Your task to perform on an android device: clear history in the chrome app Image 0: 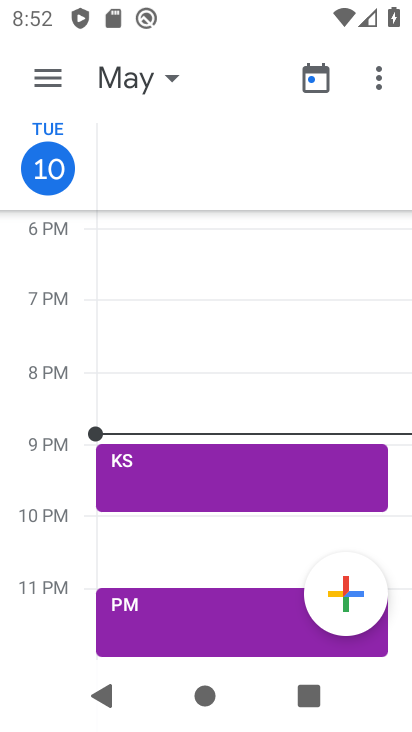
Step 0: press home button
Your task to perform on an android device: clear history in the chrome app Image 1: 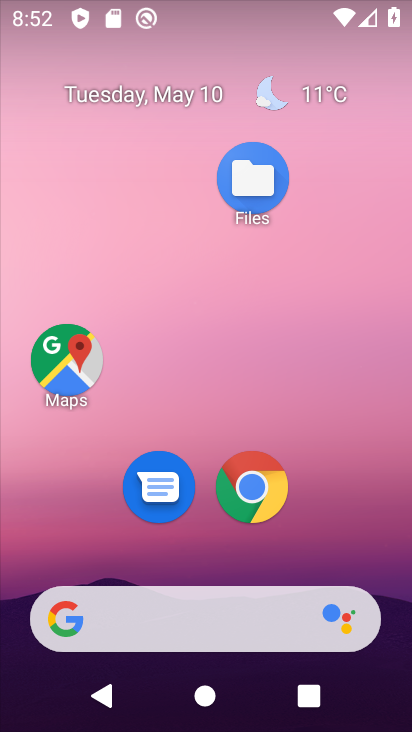
Step 1: click (250, 488)
Your task to perform on an android device: clear history in the chrome app Image 2: 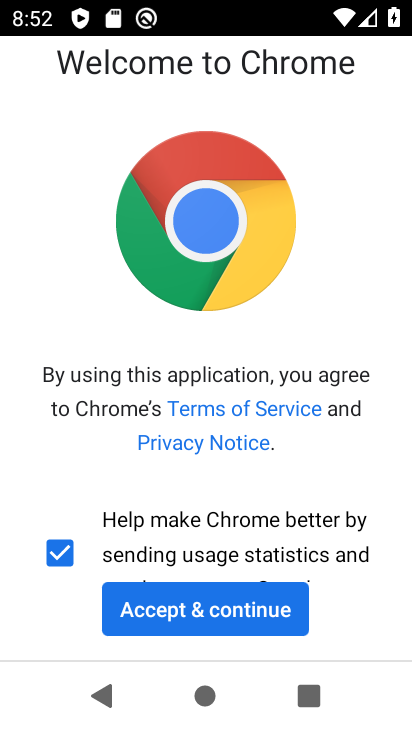
Step 2: click (160, 609)
Your task to perform on an android device: clear history in the chrome app Image 3: 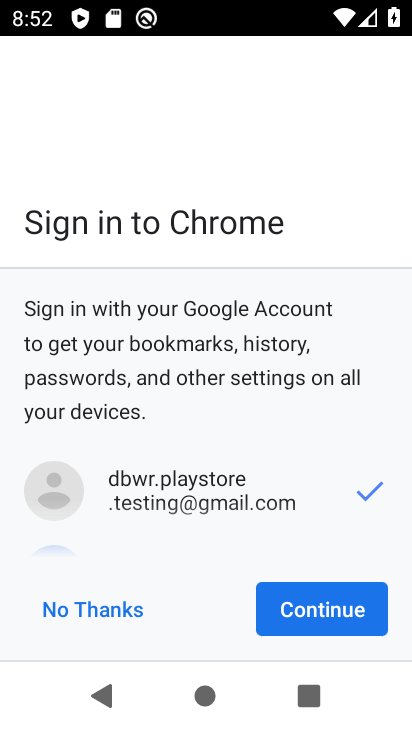
Step 3: click (316, 599)
Your task to perform on an android device: clear history in the chrome app Image 4: 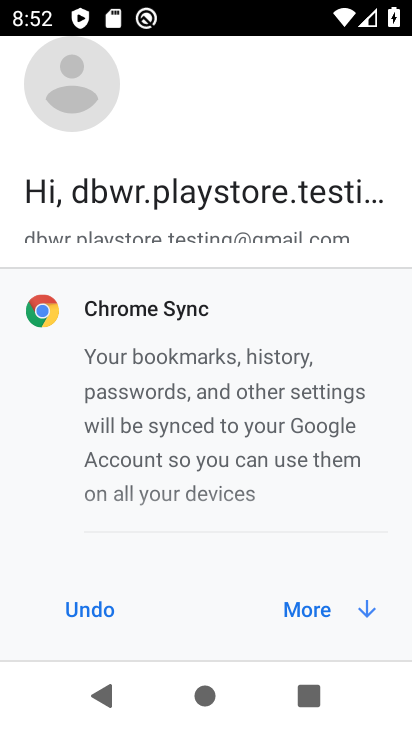
Step 4: click (313, 604)
Your task to perform on an android device: clear history in the chrome app Image 5: 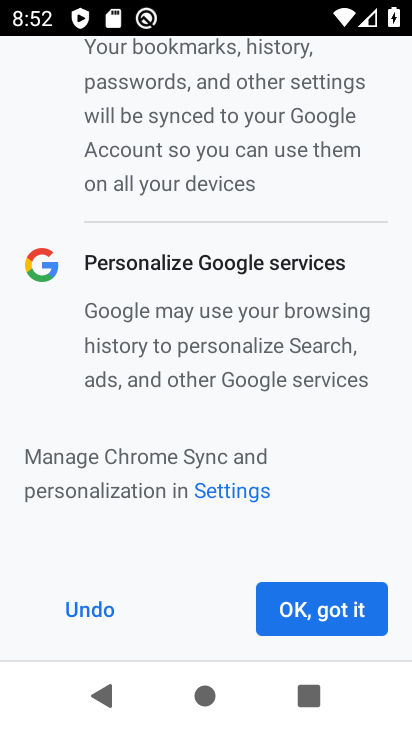
Step 5: click (313, 604)
Your task to perform on an android device: clear history in the chrome app Image 6: 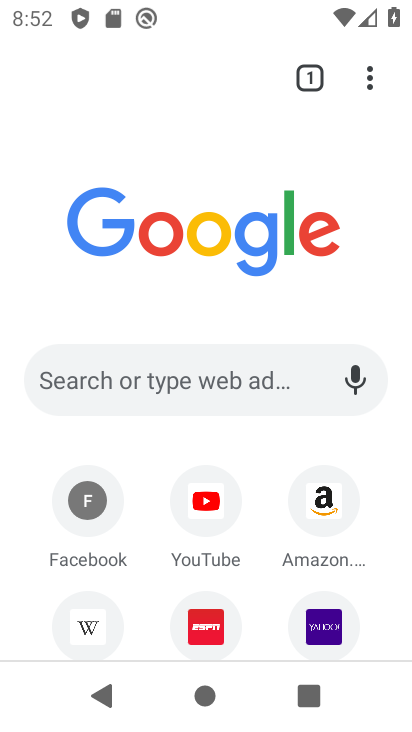
Step 6: click (365, 79)
Your task to perform on an android device: clear history in the chrome app Image 7: 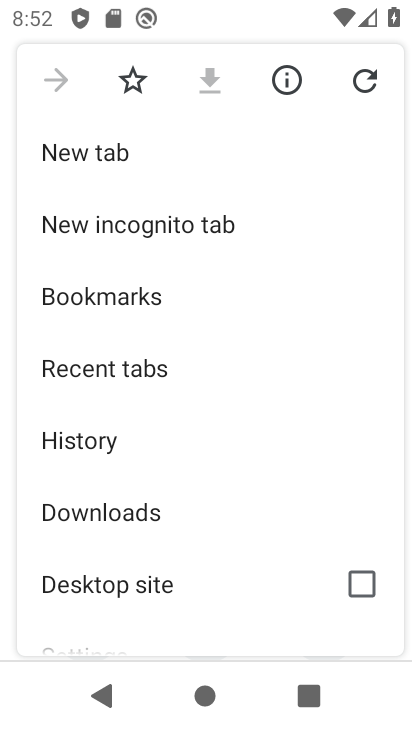
Step 7: drag from (192, 587) to (157, 180)
Your task to perform on an android device: clear history in the chrome app Image 8: 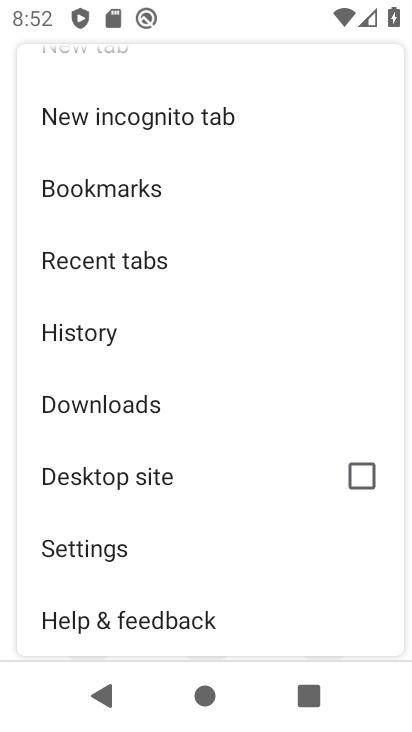
Step 8: click (106, 562)
Your task to perform on an android device: clear history in the chrome app Image 9: 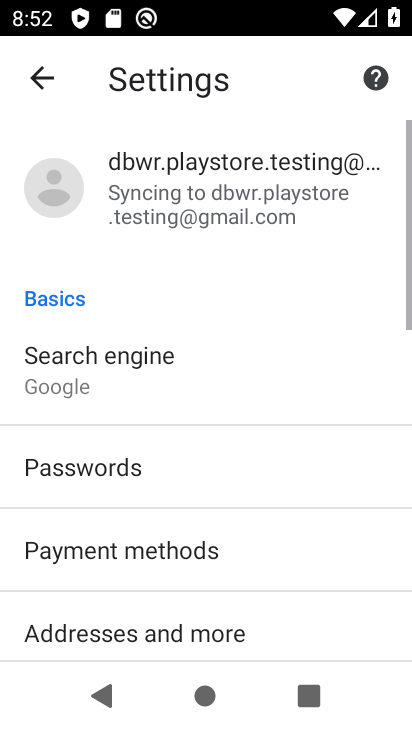
Step 9: drag from (201, 533) to (227, 49)
Your task to perform on an android device: clear history in the chrome app Image 10: 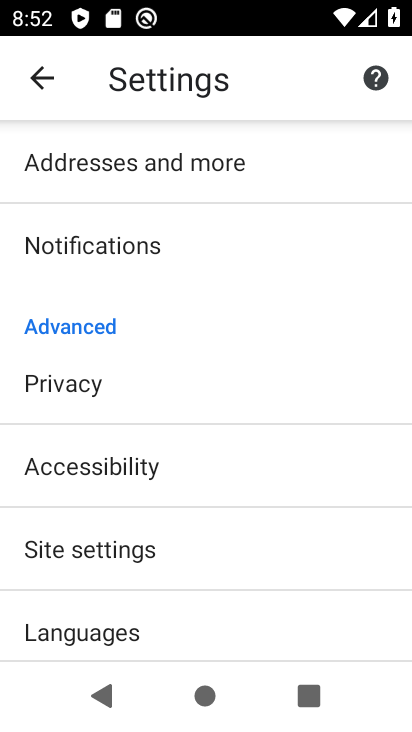
Step 10: click (52, 392)
Your task to perform on an android device: clear history in the chrome app Image 11: 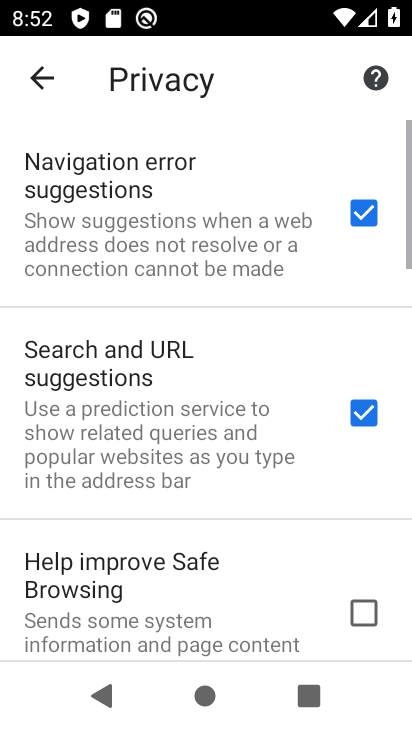
Step 11: drag from (233, 522) to (230, 78)
Your task to perform on an android device: clear history in the chrome app Image 12: 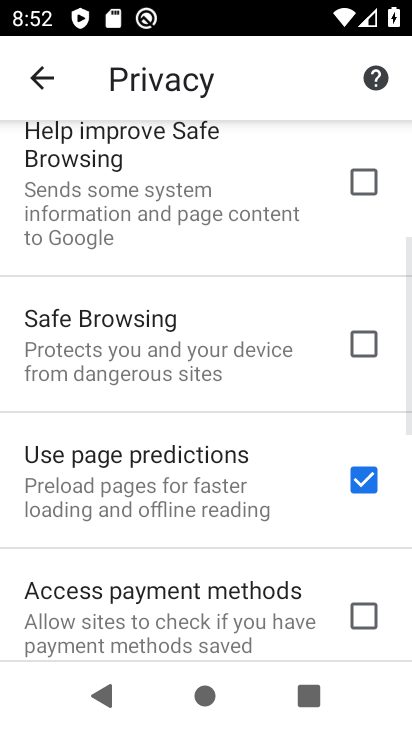
Step 12: drag from (249, 529) to (295, 16)
Your task to perform on an android device: clear history in the chrome app Image 13: 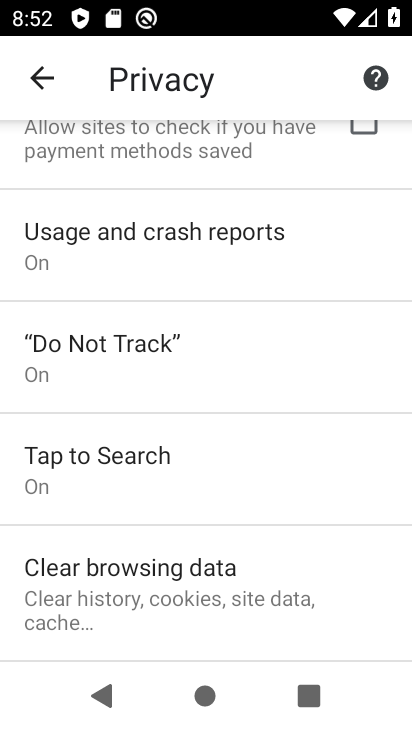
Step 13: click (175, 587)
Your task to perform on an android device: clear history in the chrome app Image 14: 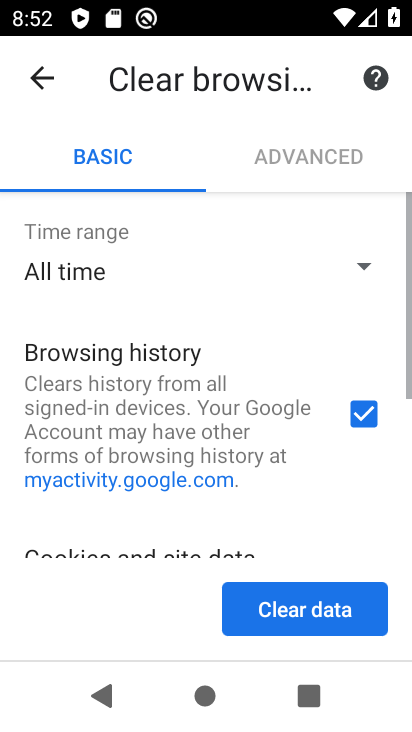
Step 14: drag from (264, 462) to (259, 181)
Your task to perform on an android device: clear history in the chrome app Image 15: 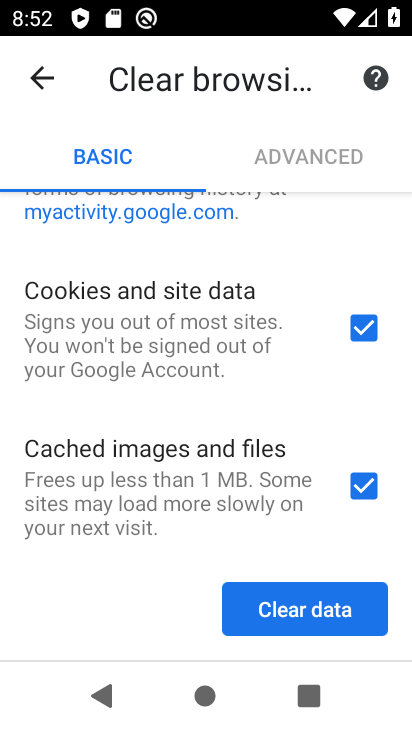
Step 15: click (370, 327)
Your task to perform on an android device: clear history in the chrome app Image 16: 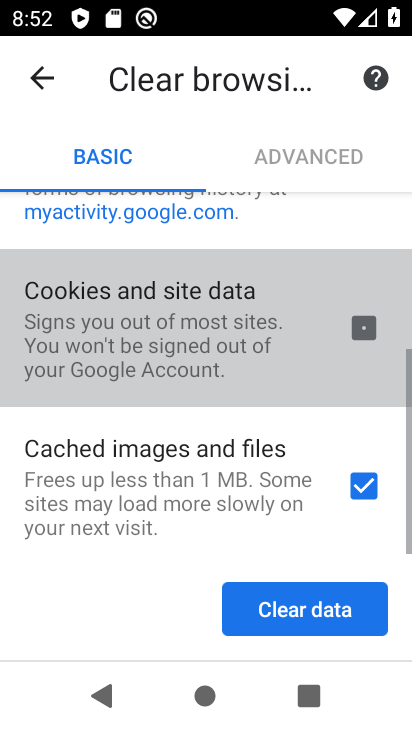
Step 16: click (363, 482)
Your task to perform on an android device: clear history in the chrome app Image 17: 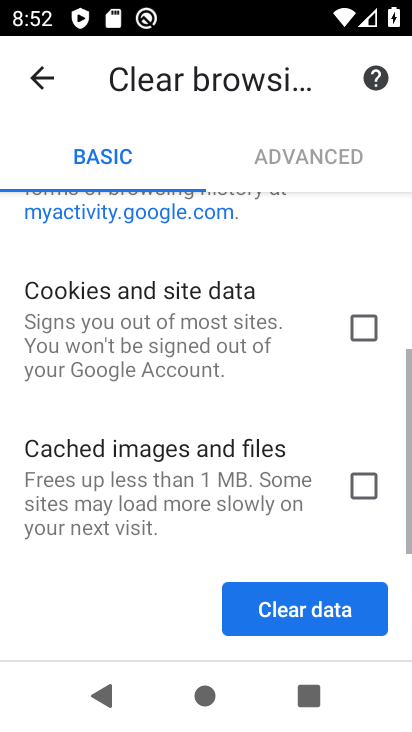
Step 17: click (281, 622)
Your task to perform on an android device: clear history in the chrome app Image 18: 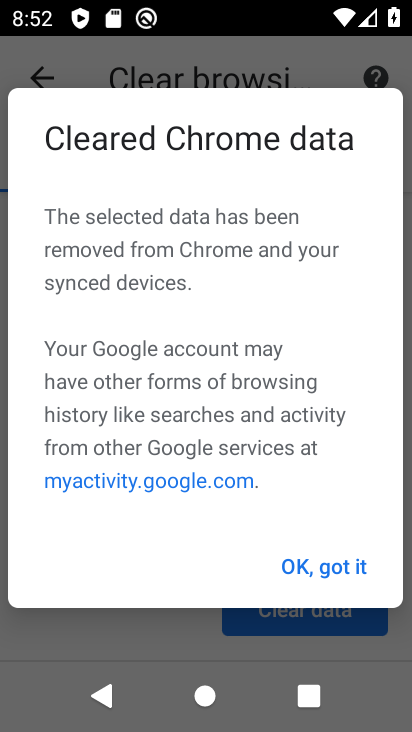
Step 18: click (313, 570)
Your task to perform on an android device: clear history in the chrome app Image 19: 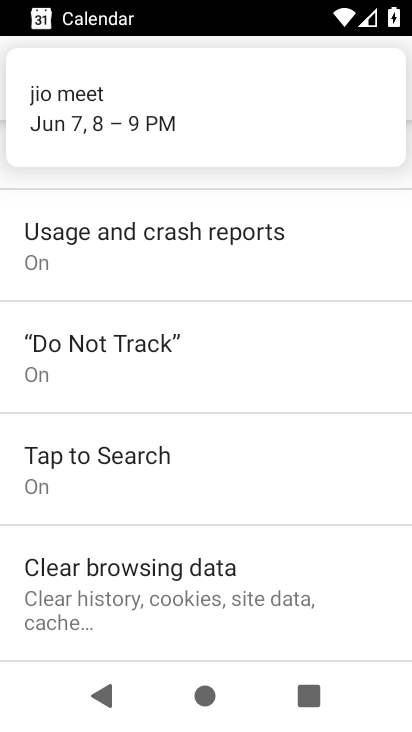
Step 19: task complete